Your task to perform on an android device: check google app version Image 0: 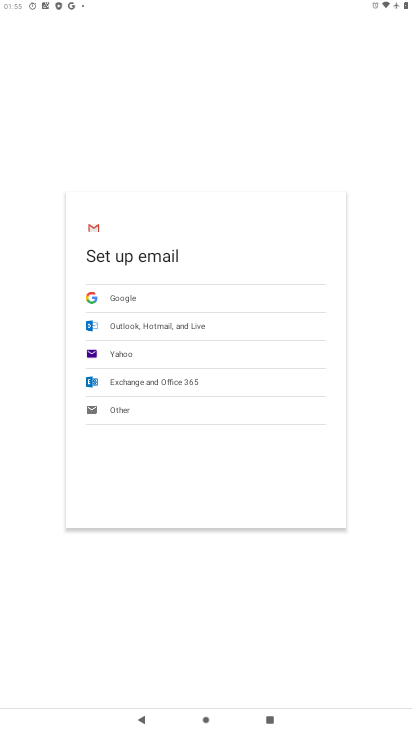
Step 0: press home button
Your task to perform on an android device: check google app version Image 1: 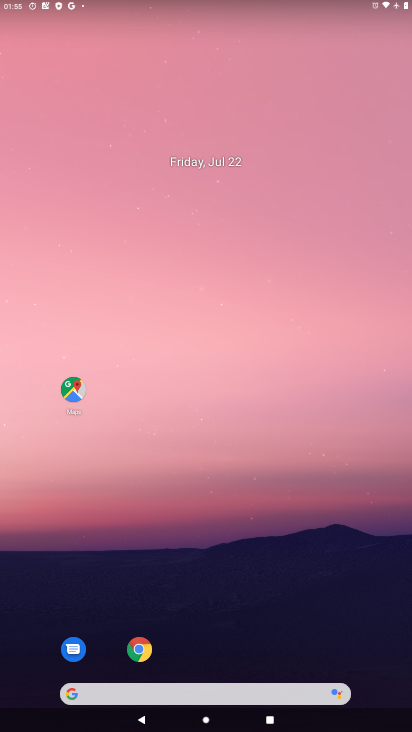
Step 1: drag from (213, 609) to (242, 57)
Your task to perform on an android device: check google app version Image 2: 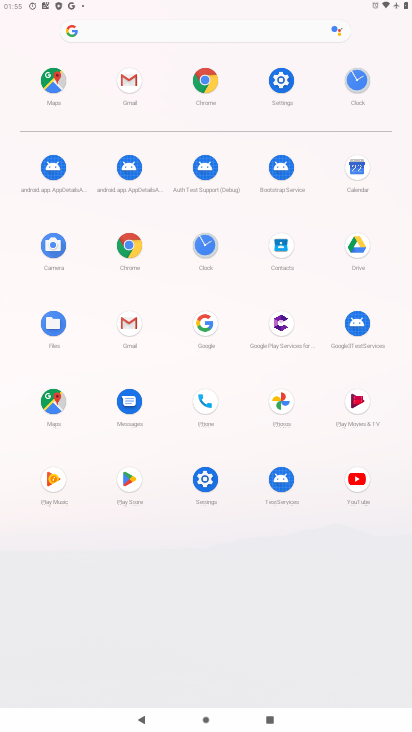
Step 2: click (200, 324)
Your task to perform on an android device: check google app version Image 3: 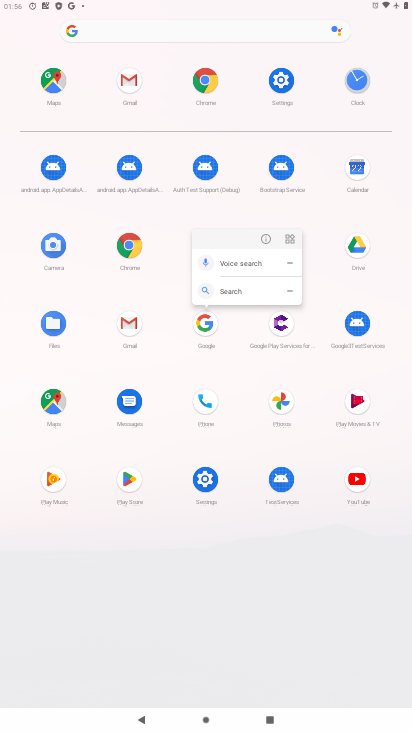
Step 3: click (262, 237)
Your task to perform on an android device: check google app version Image 4: 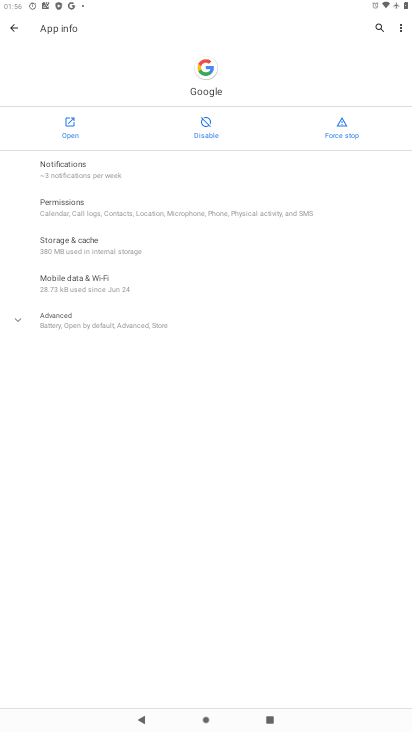
Step 4: click (112, 334)
Your task to perform on an android device: check google app version Image 5: 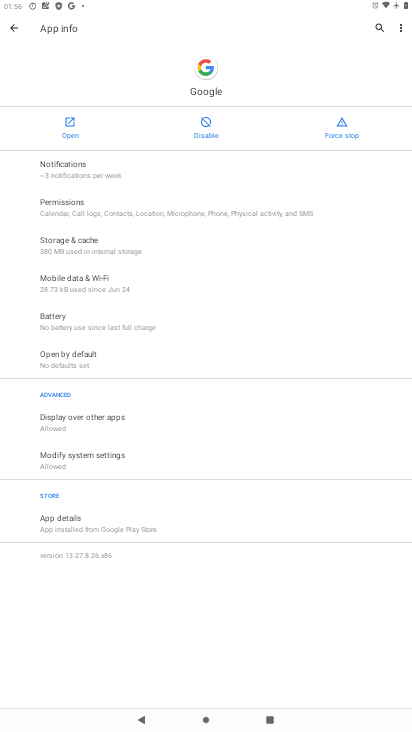
Step 5: task complete